Your task to perform on an android device: change the clock style Image 0: 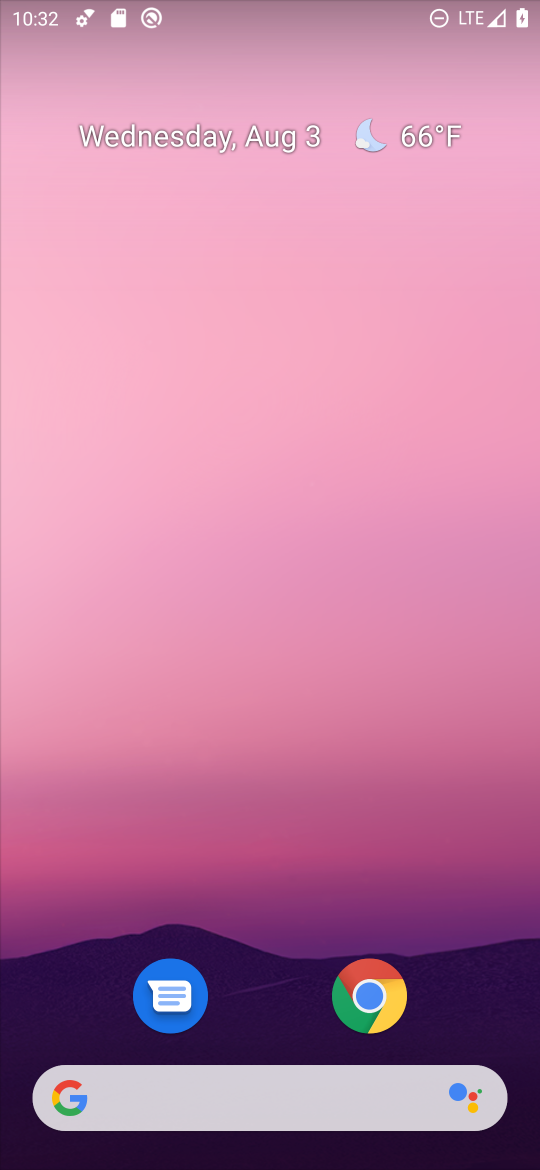
Step 0: drag from (264, 847) to (313, 42)
Your task to perform on an android device: change the clock style Image 1: 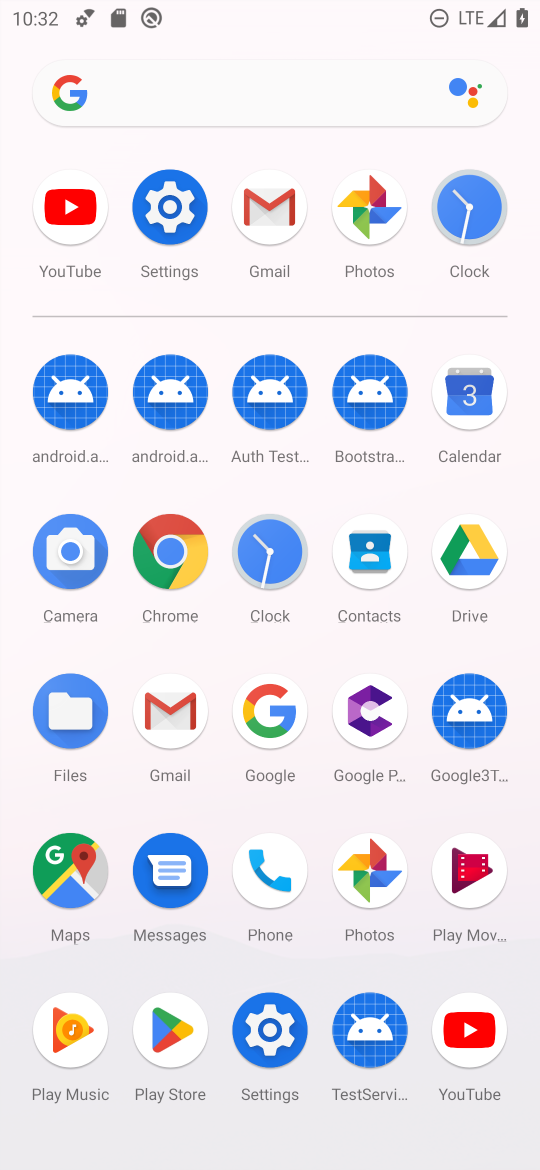
Step 1: click (472, 220)
Your task to perform on an android device: change the clock style Image 2: 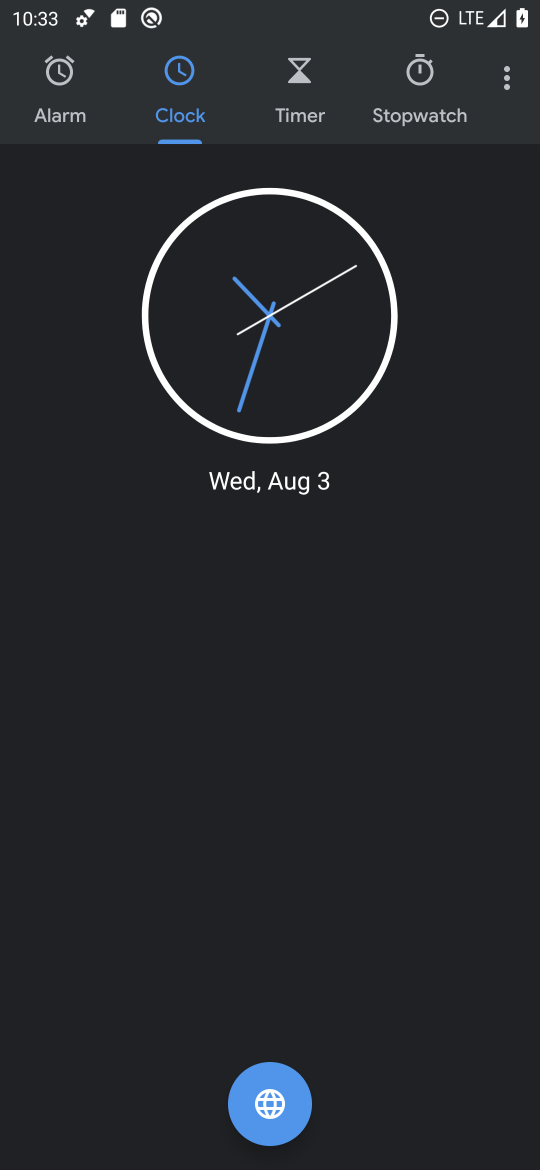
Step 2: click (511, 90)
Your task to perform on an android device: change the clock style Image 3: 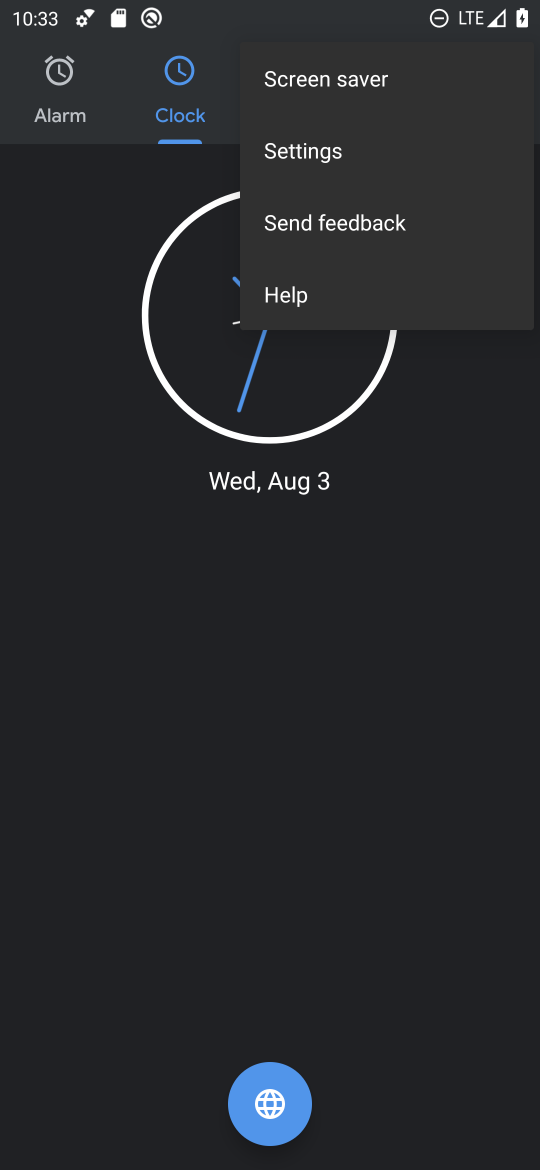
Step 3: click (348, 154)
Your task to perform on an android device: change the clock style Image 4: 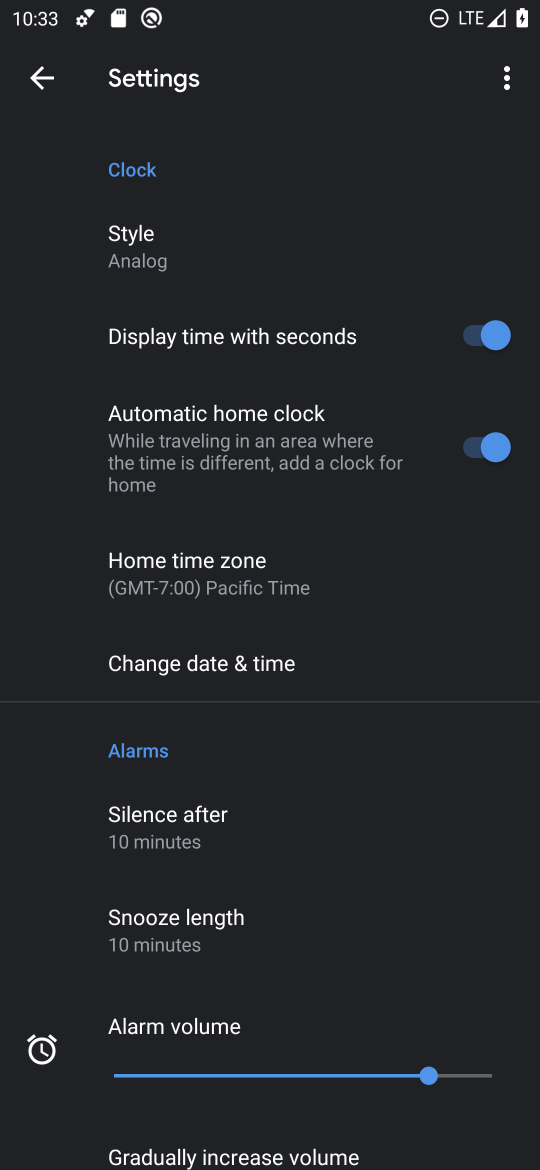
Step 4: click (161, 254)
Your task to perform on an android device: change the clock style Image 5: 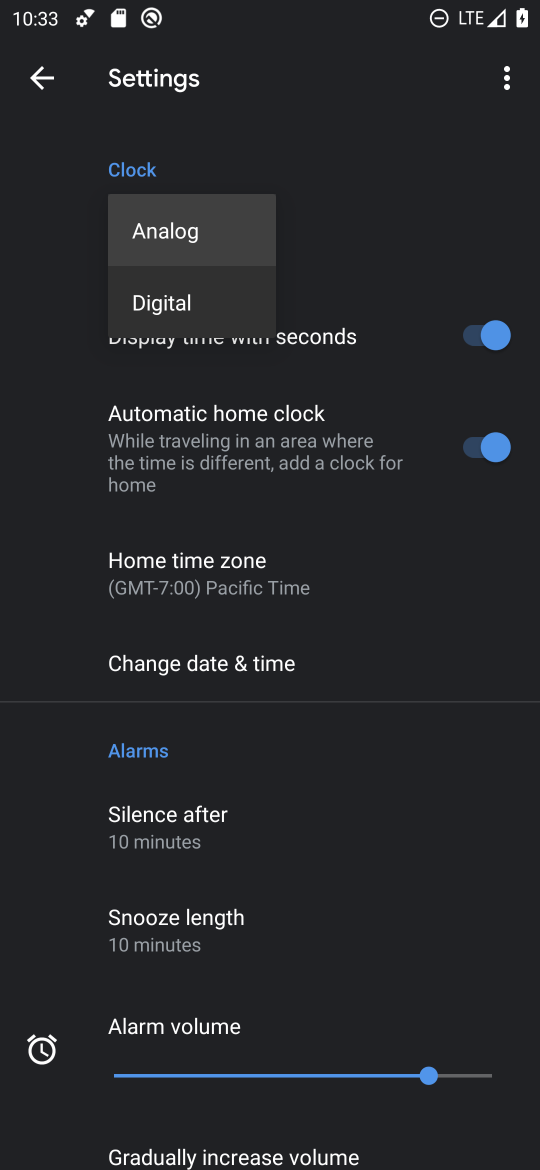
Step 5: click (186, 299)
Your task to perform on an android device: change the clock style Image 6: 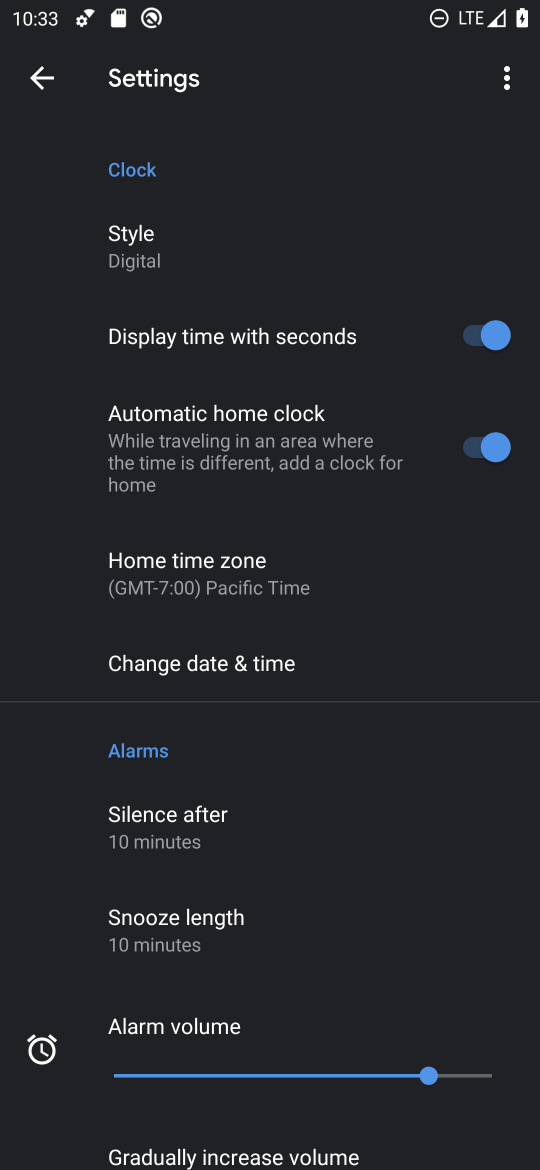
Step 6: click (50, 79)
Your task to perform on an android device: change the clock style Image 7: 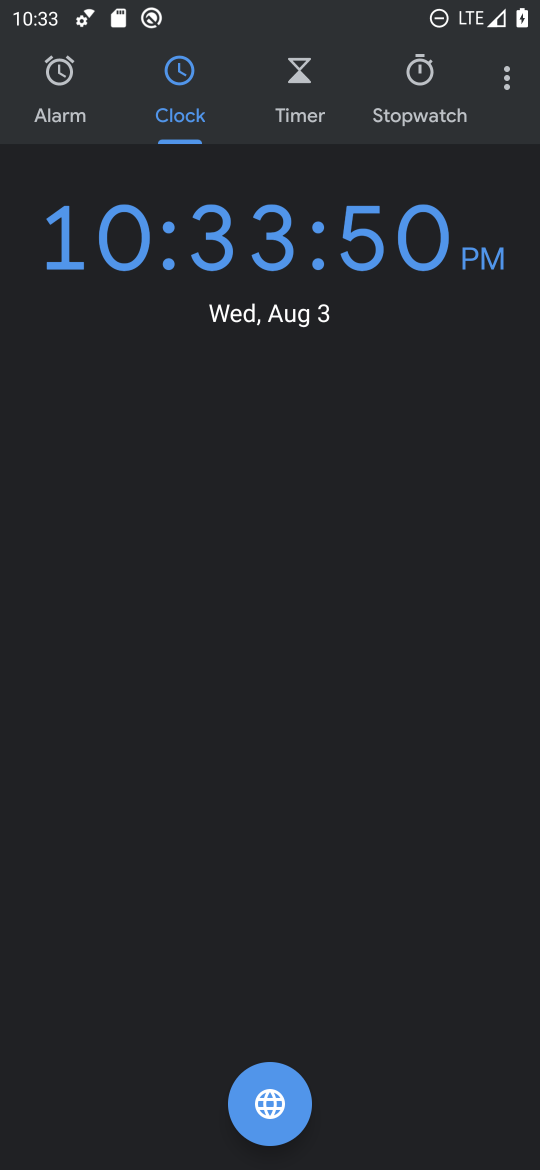
Step 7: task complete